Your task to perform on an android device: uninstall "Duolingo: language lessons" Image 0: 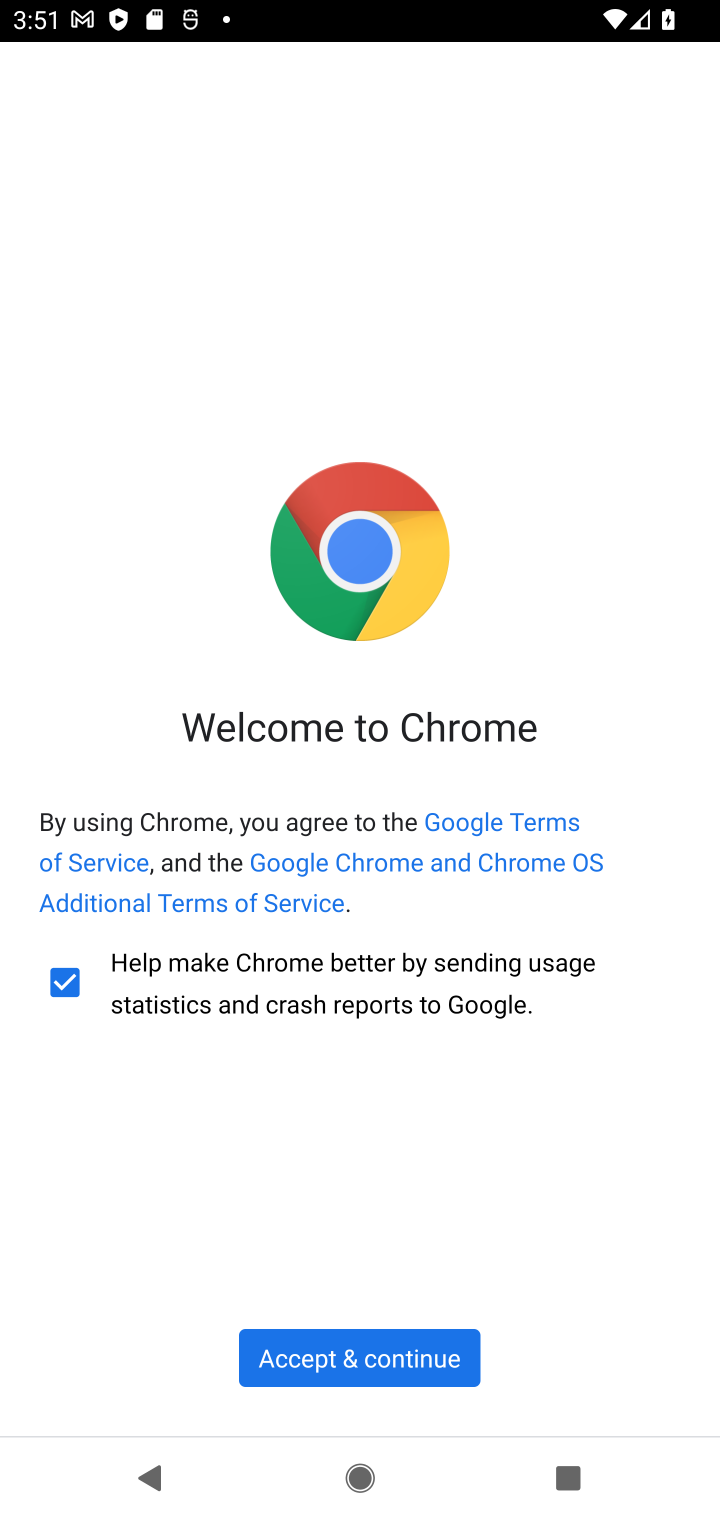
Step 0: press home button
Your task to perform on an android device: uninstall "Duolingo: language lessons" Image 1: 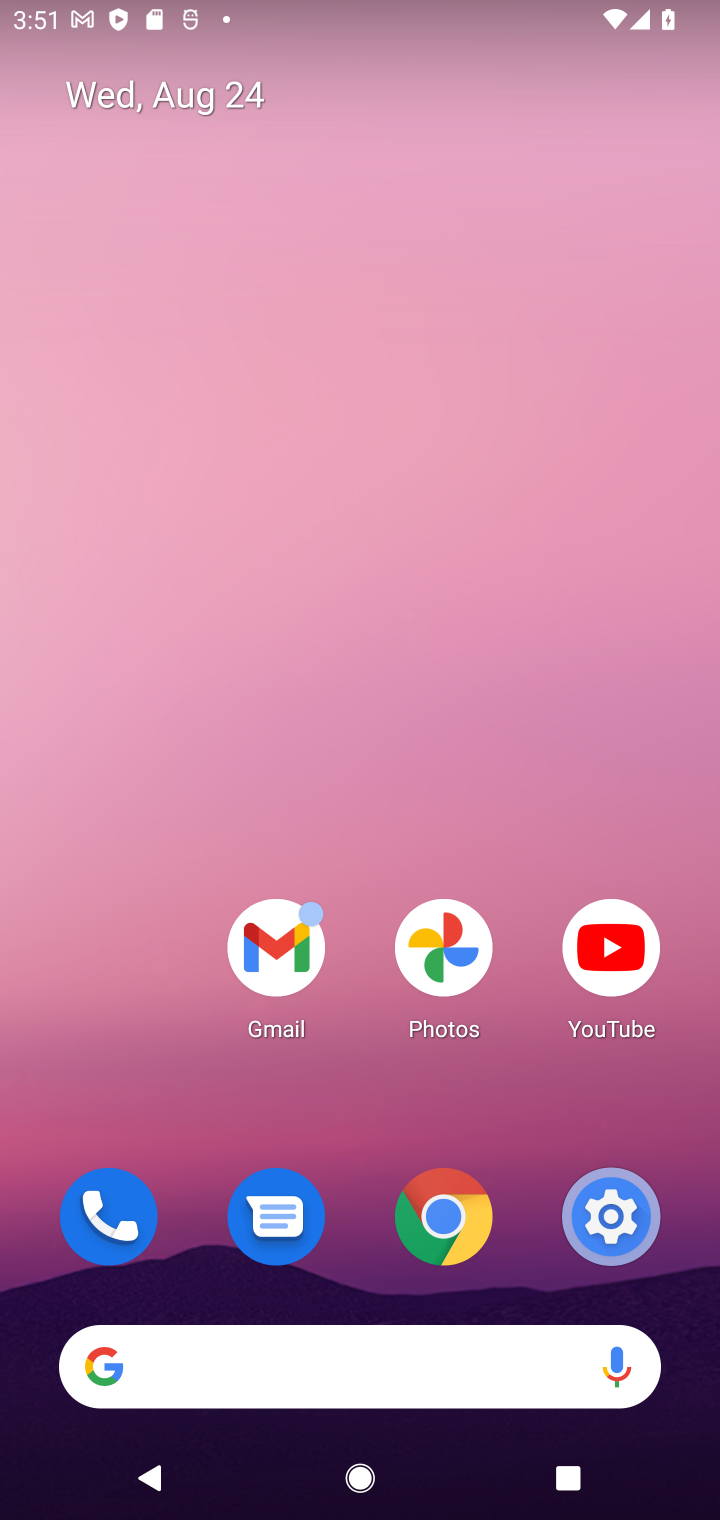
Step 1: drag from (344, 1068) to (355, 116)
Your task to perform on an android device: uninstall "Duolingo: language lessons" Image 2: 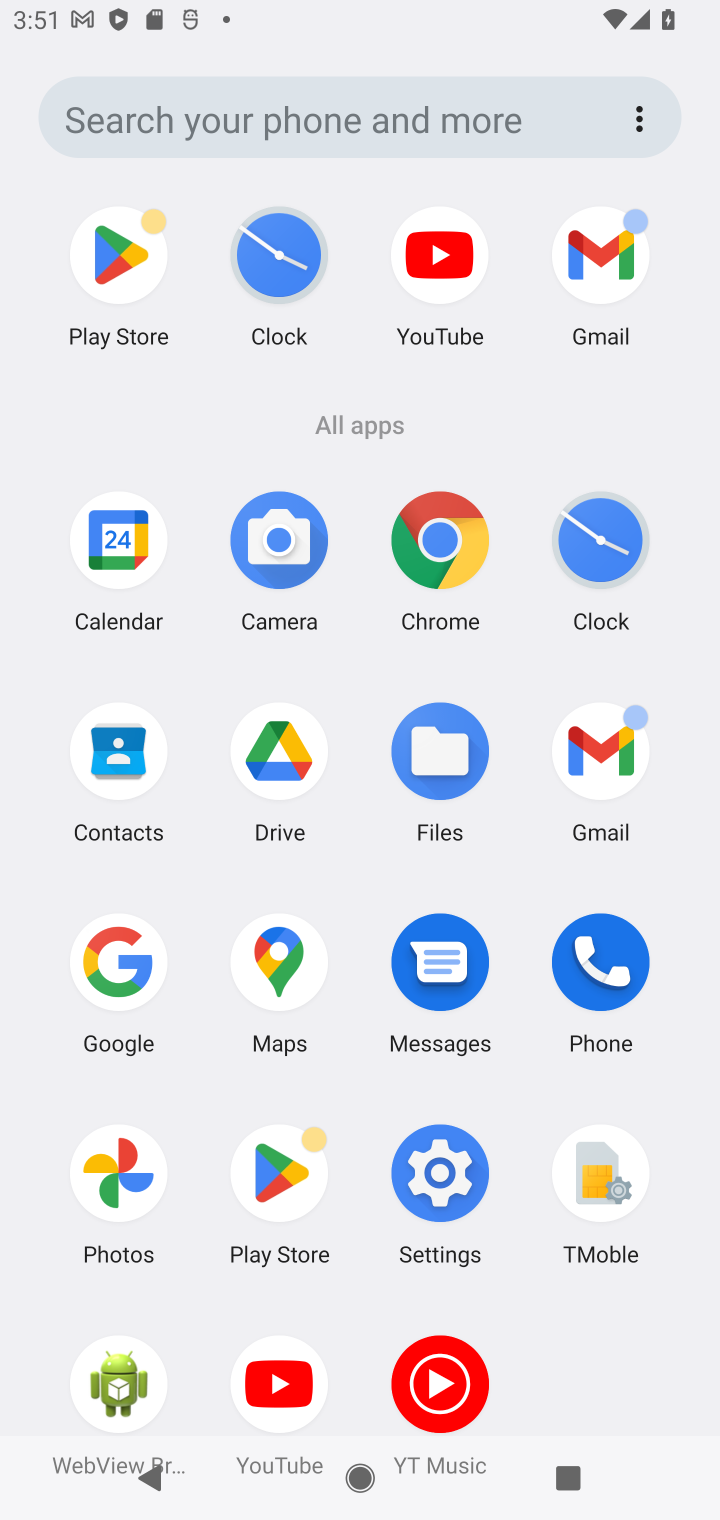
Step 2: click (104, 284)
Your task to perform on an android device: uninstall "Duolingo: language lessons" Image 3: 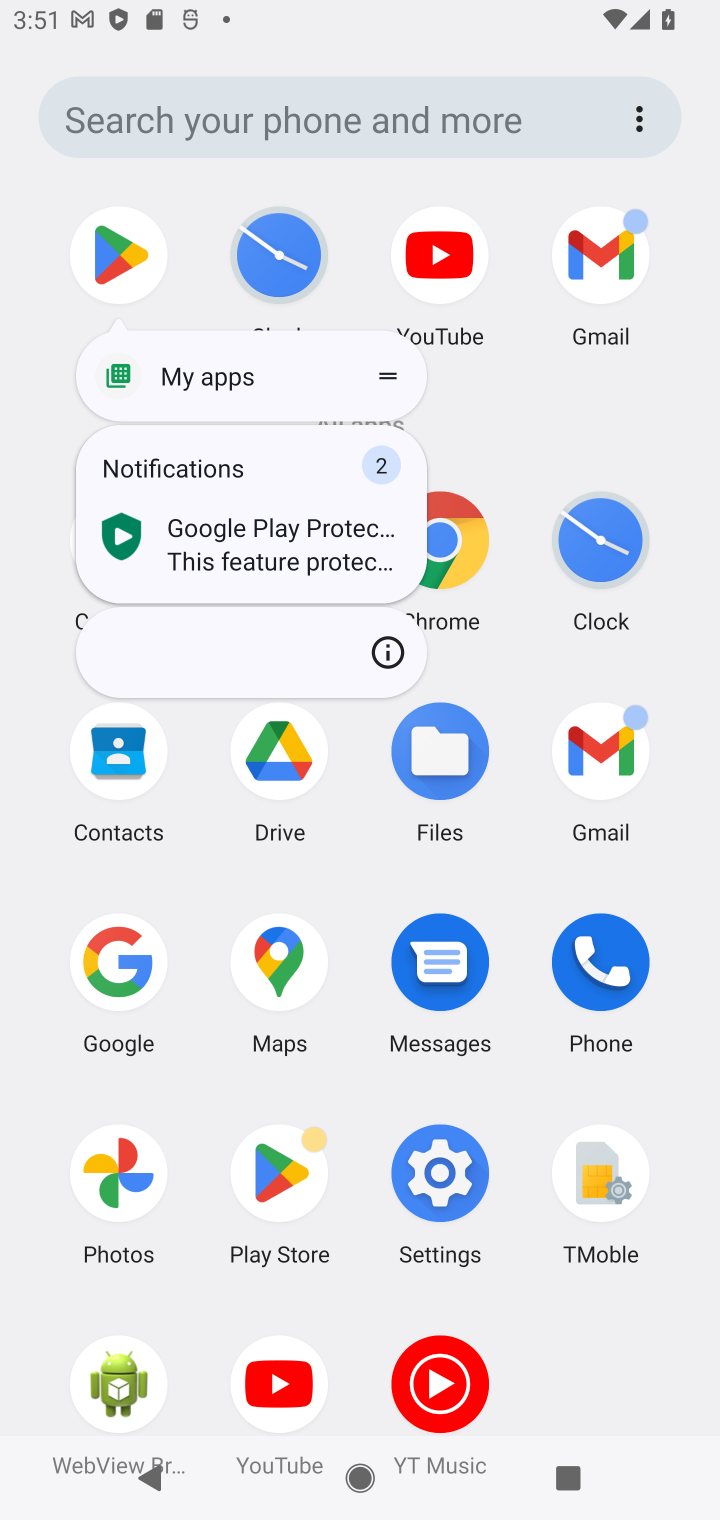
Step 3: click (119, 244)
Your task to perform on an android device: uninstall "Duolingo: language lessons" Image 4: 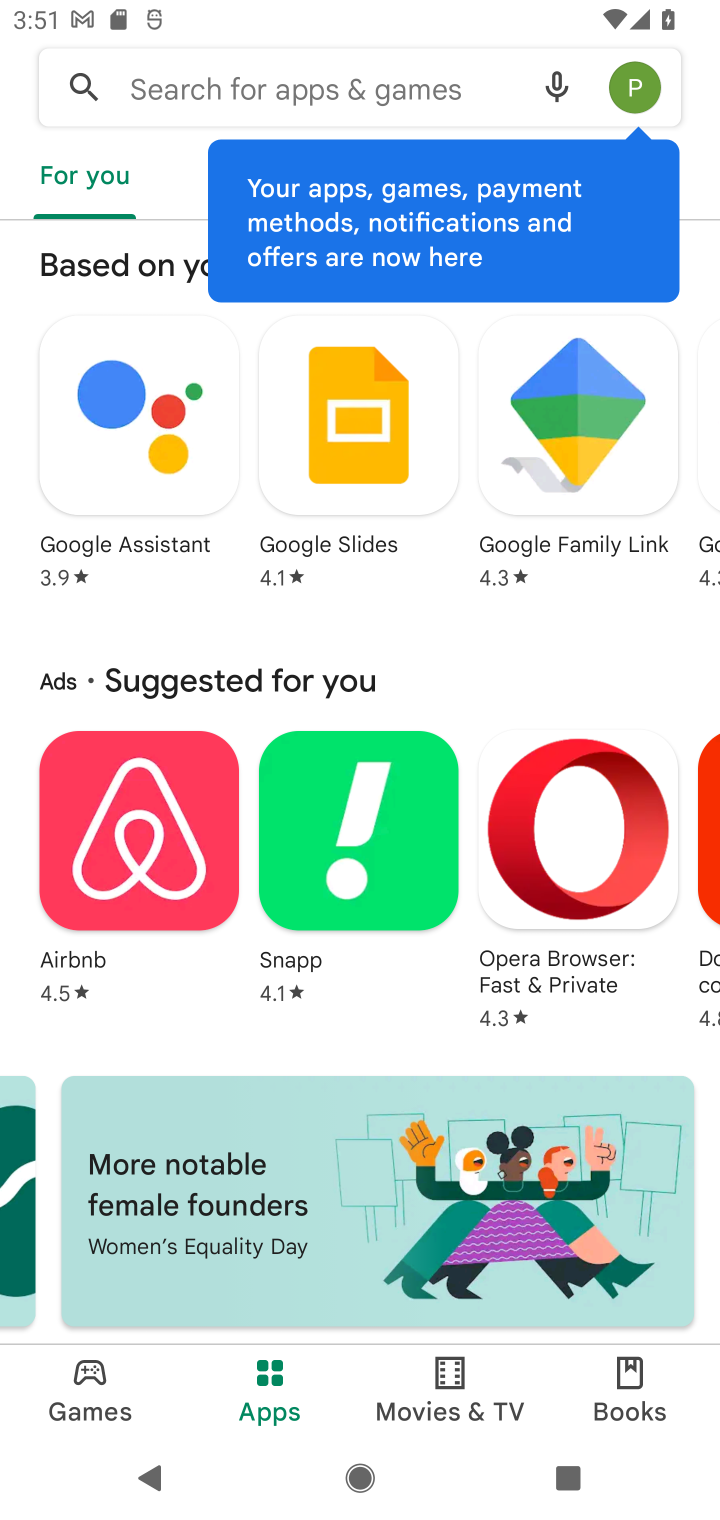
Step 4: click (178, 108)
Your task to perform on an android device: uninstall "Duolingo: language lessons" Image 5: 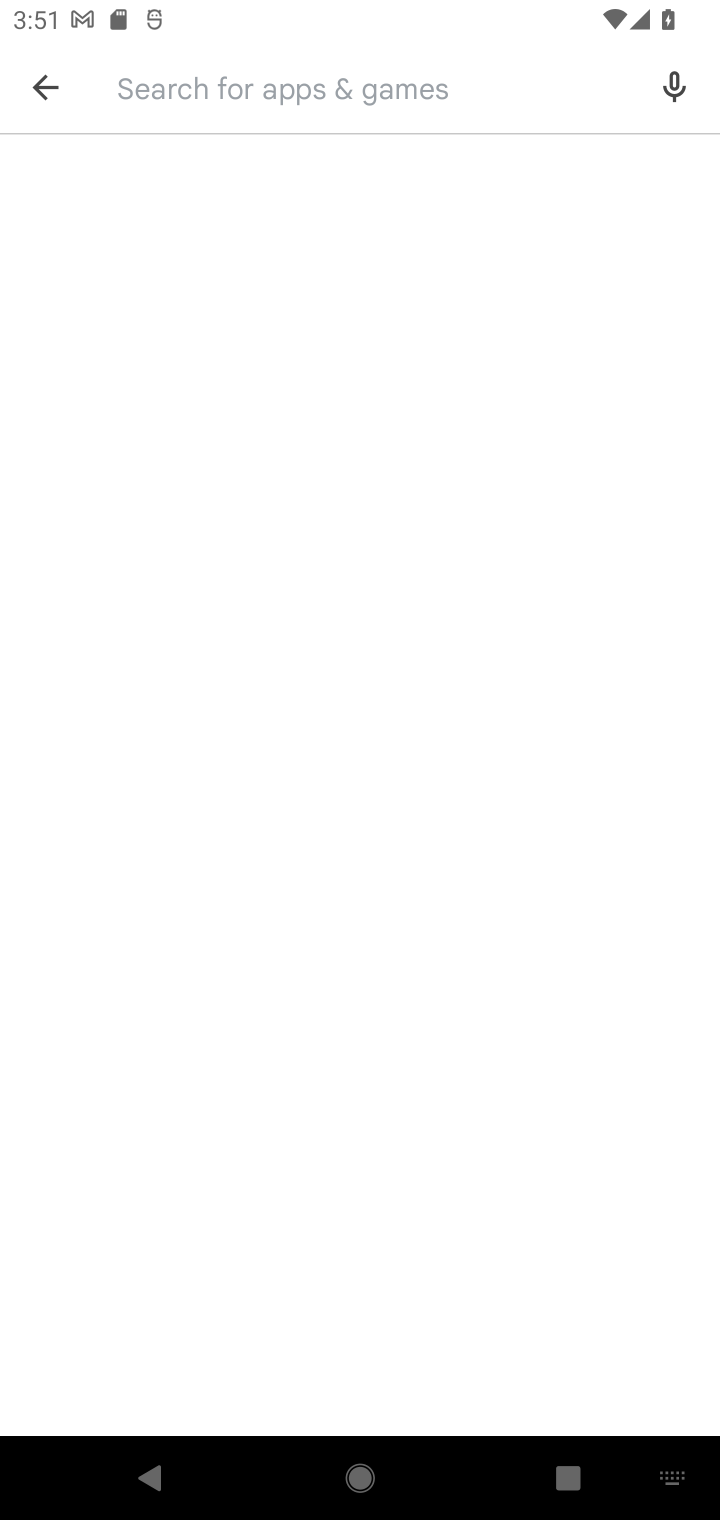
Step 5: type "Duolingo: language lessons"
Your task to perform on an android device: uninstall "Duolingo: language lessons" Image 6: 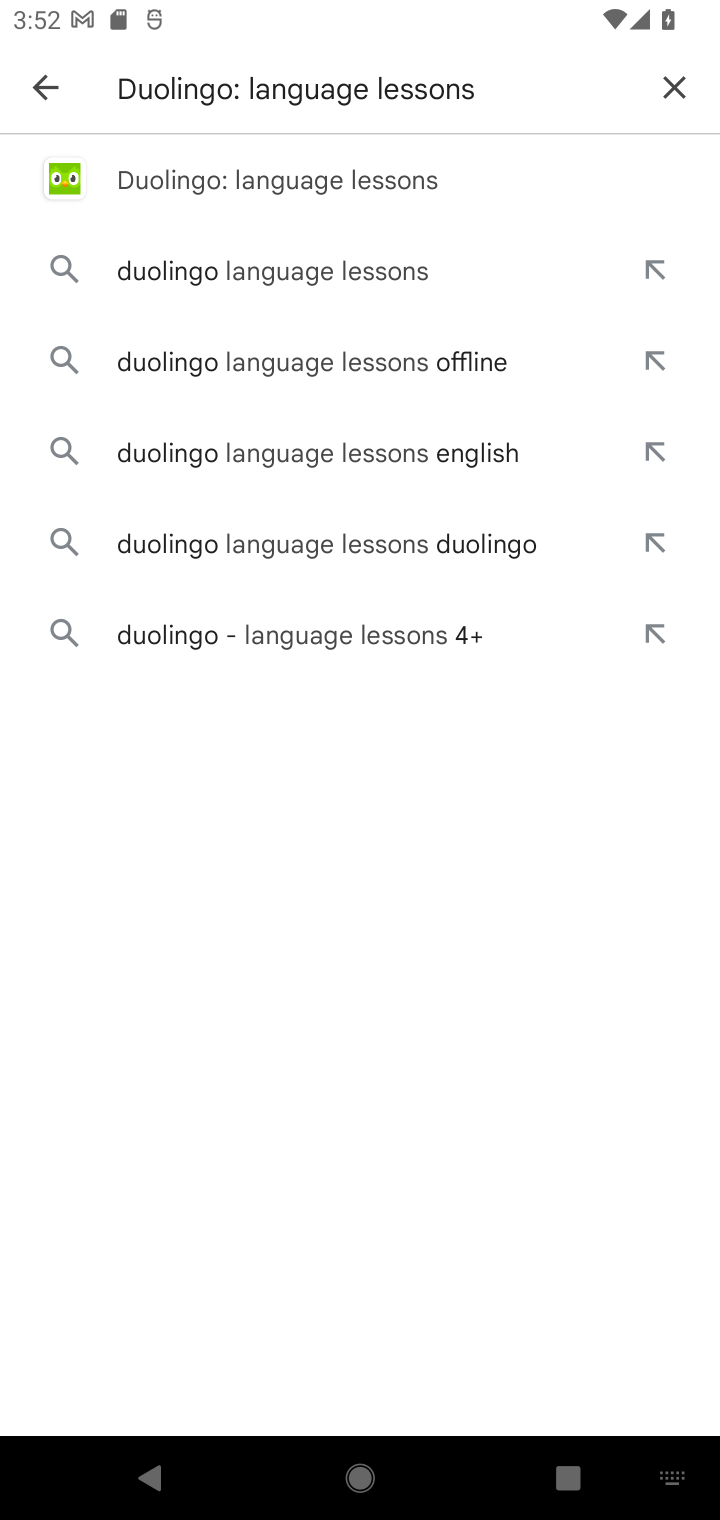
Step 6: click (270, 167)
Your task to perform on an android device: uninstall "Duolingo: language lessons" Image 7: 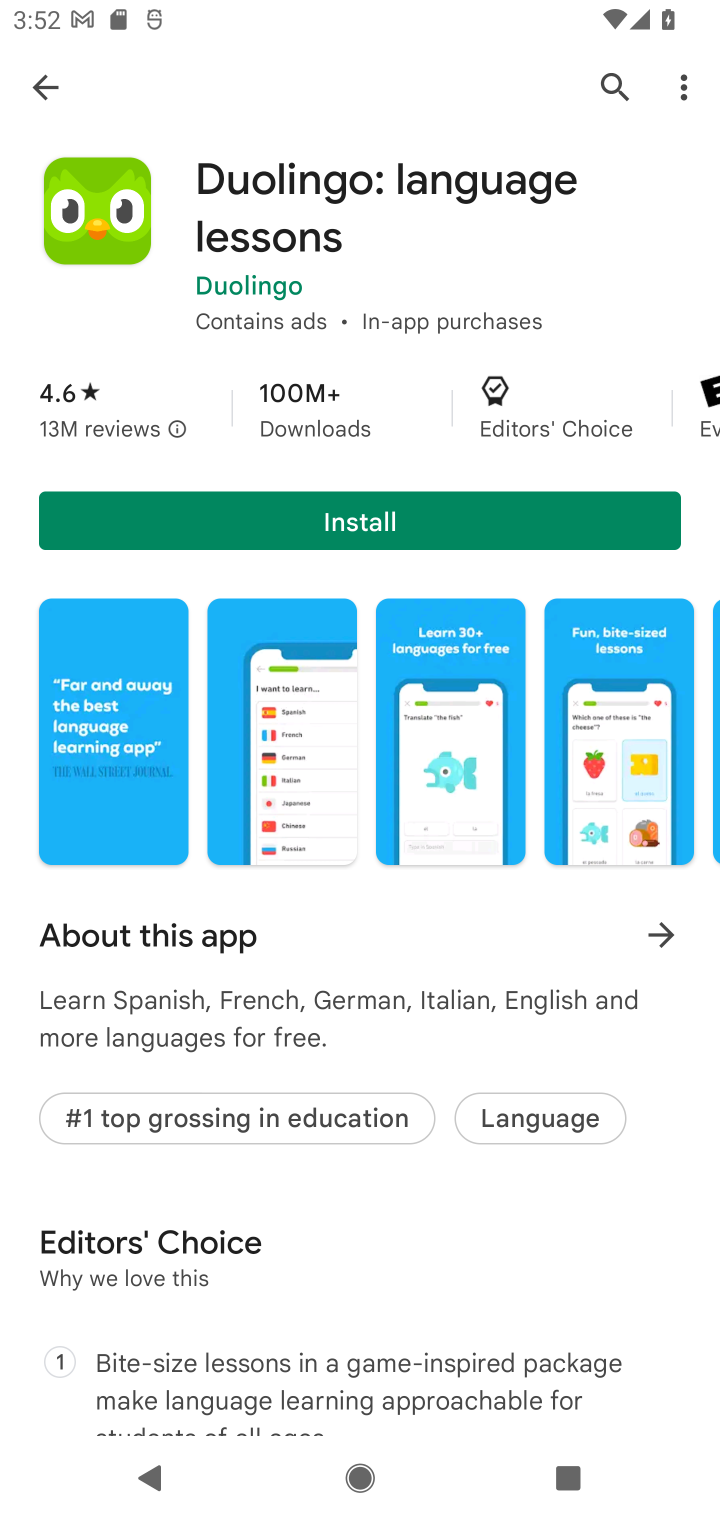
Step 7: task complete